Your task to perform on an android device: create a new album in the google photos Image 0: 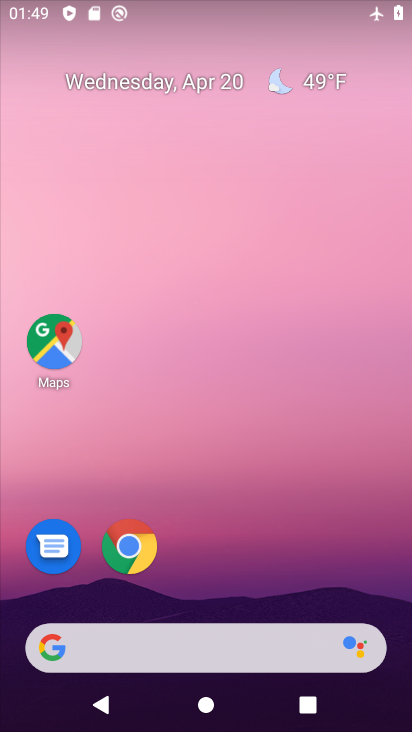
Step 0: drag from (262, 592) to (296, 282)
Your task to perform on an android device: create a new album in the google photos Image 1: 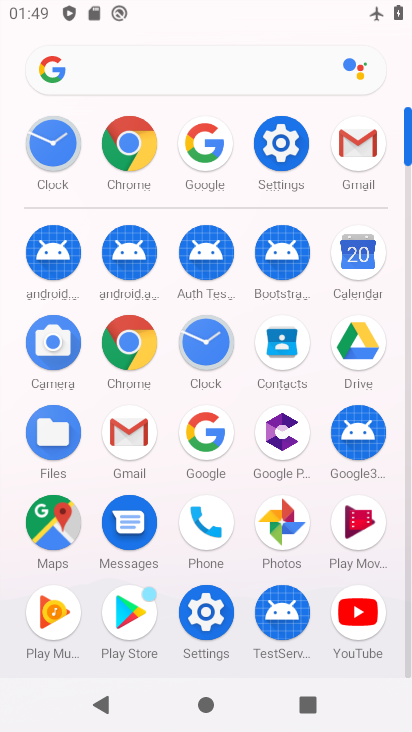
Step 1: click (280, 523)
Your task to perform on an android device: create a new album in the google photos Image 2: 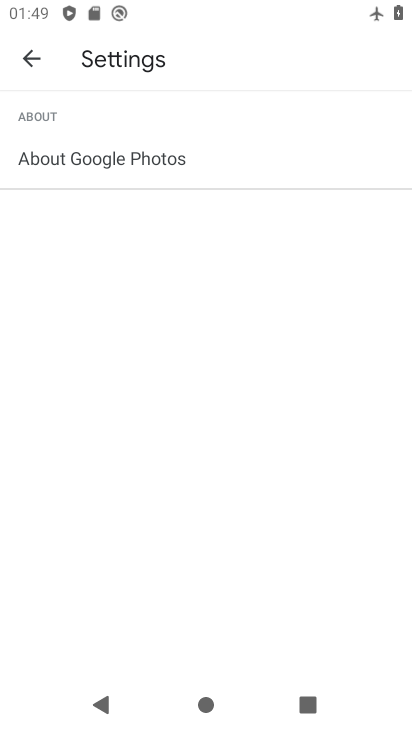
Step 2: click (24, 59)
Your task to perform on an android device: create a new album in the google photos Image 3: 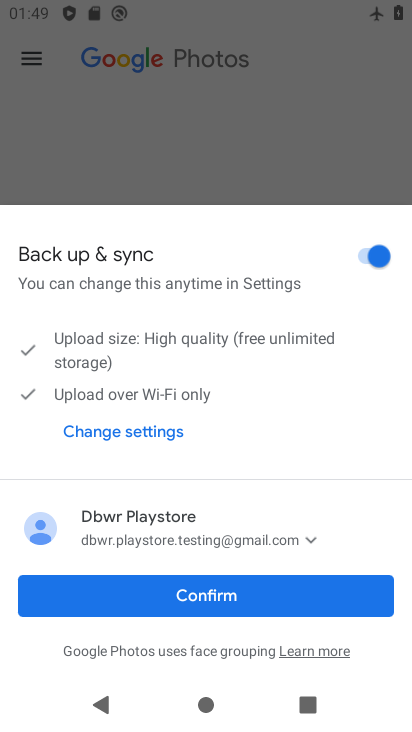
Step 3: click (241, 587)
Your task to perform on an android device: create a new album in the google photos Image 4: 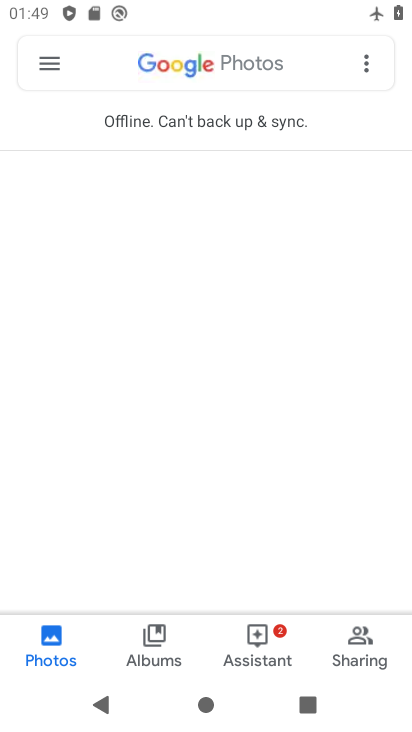
Step 4: click (149, 624)
Your task to perform on an android device: create a new album in the google photos Image 5: 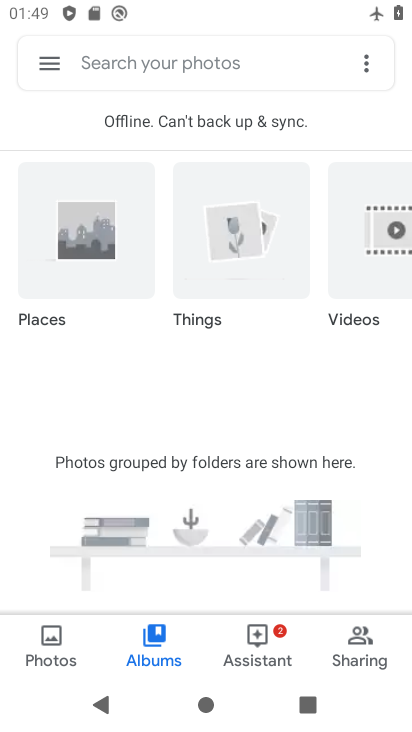
Step 5: click (157, 635)
Your task to perform on an android device: create a new album in the google photos Image 6: 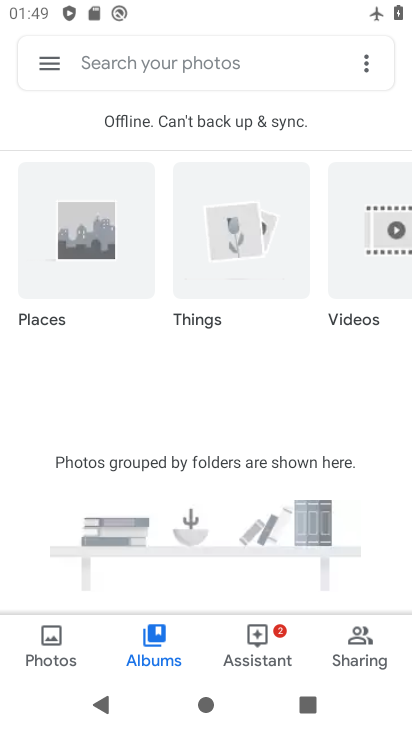
Step 6: click (53, 636)
Your task to perform on an android device: create a new album in the google photos Image 7: 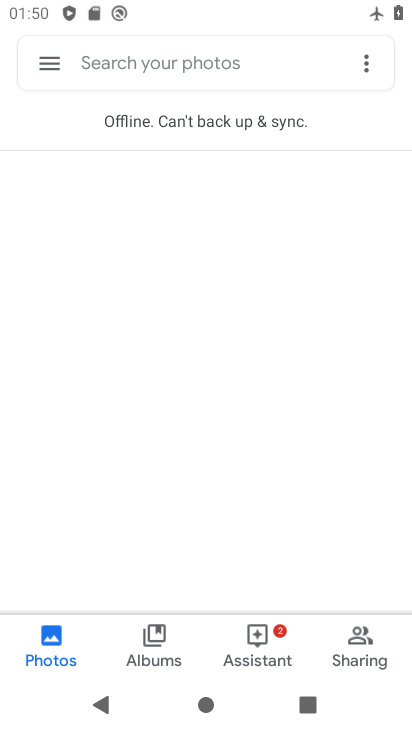
Step 7: click (144, 653)
Your task to perform on an android device: create a new album in the google photos Image 8: 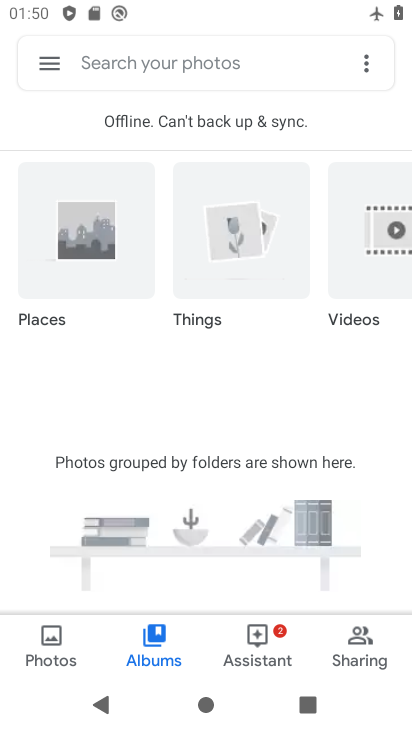
Step 8: click (102, 235)
Your task to perform on an android device: create a new album in the google photos Image 9: 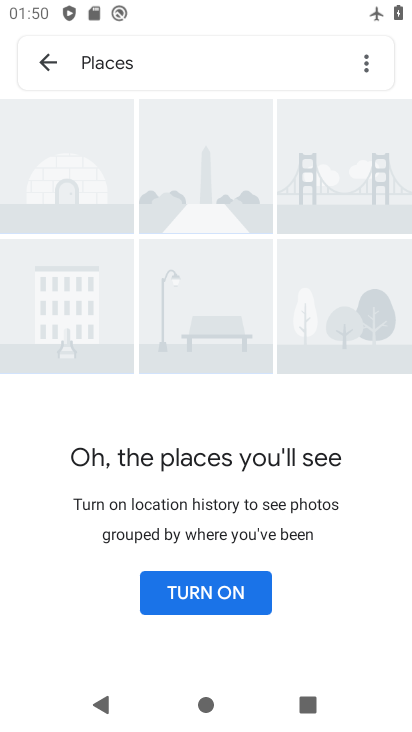
Step 9: click (93, 712)
Your task to perform on an android device: create a new album in the google photos Image 10: 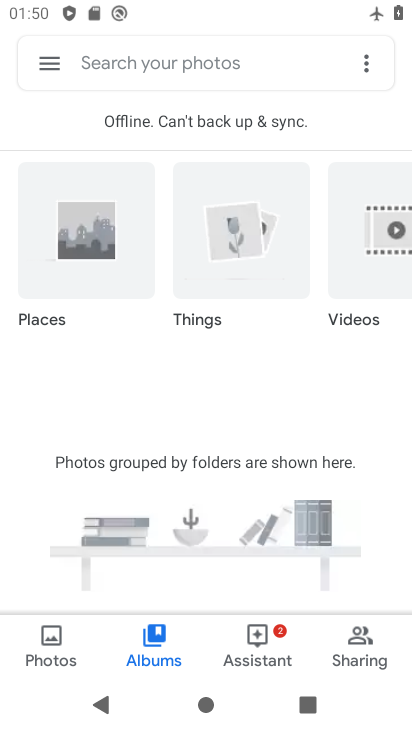
Step 10: task complete